Your task to perform on an android device: turn notification dots on Image 0: 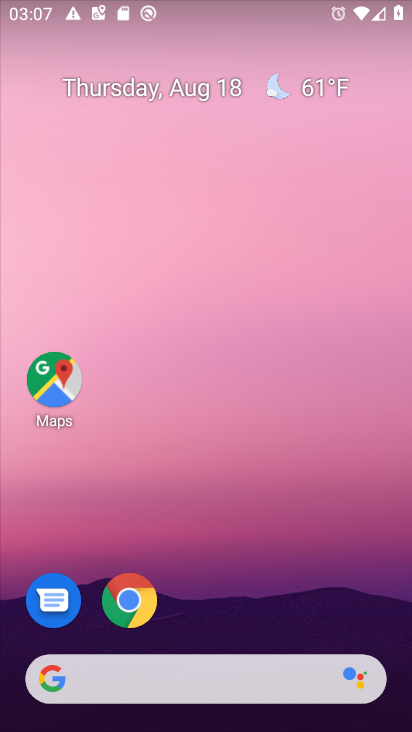
Step 0: press home button
Your task to perform on an android device: turn notification dots on Image 1: 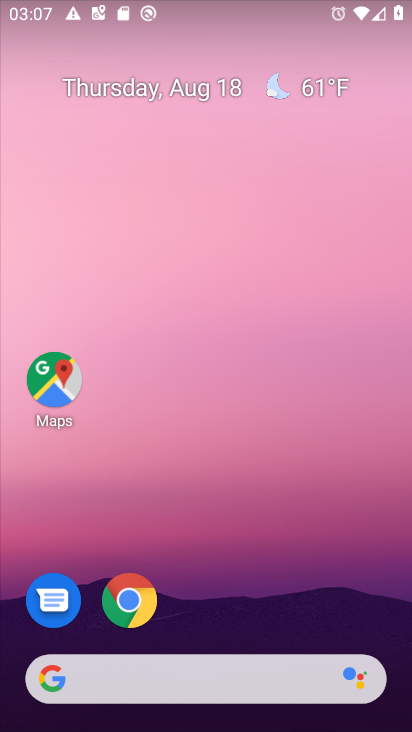
Step 1: drag from (271, 572) to (206, 1)
Your task to perform on an android device: turn notification dots on Image 2: 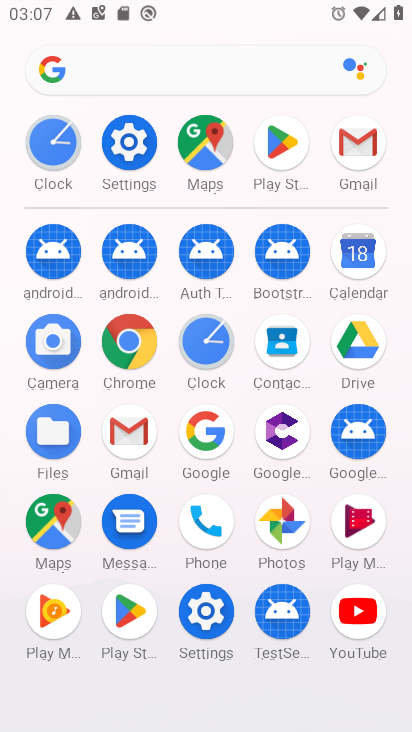
Step 2: click (142, 137)
Your task to perform on an android device: turn notification dots on Image 3: 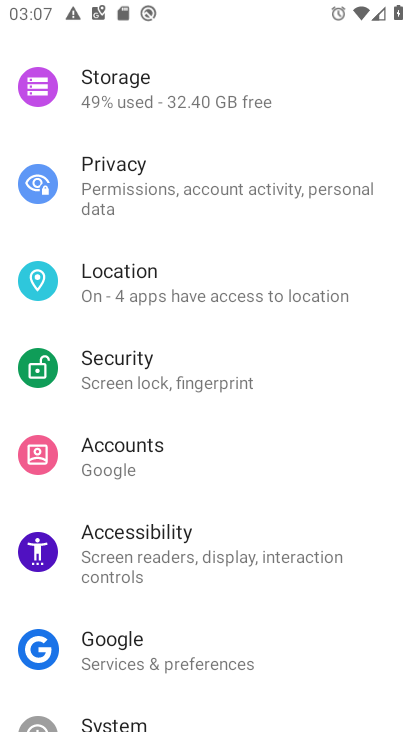
Step 3: drag from (281, 370) to (333, 678)
Your task to perform on an android device: turn notification dots on Image 4: 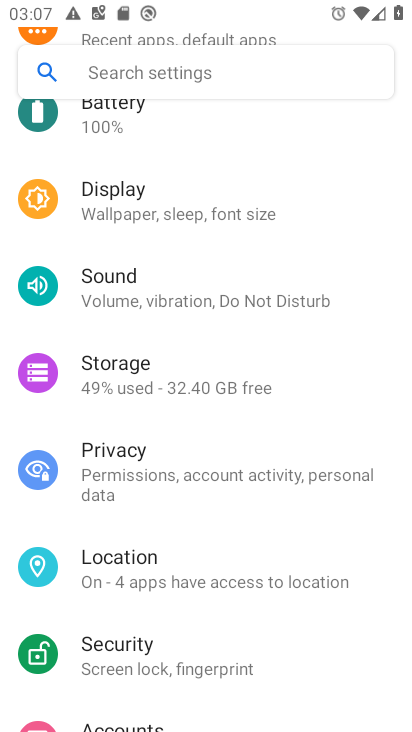
Step 4: drag from (257, 334) to (300, 701)
Your task to perform on an android device: turn notification dots on Image 5: 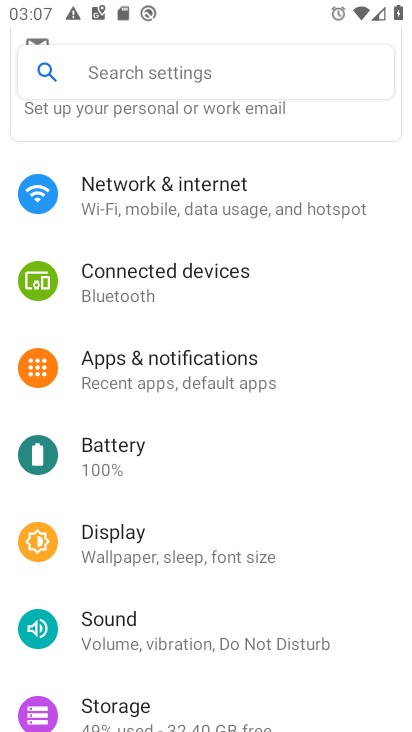
Step 5: drag from (285, 345) to (290, 580)
Your task to perform on an android device: turn notification dots on Image 6: 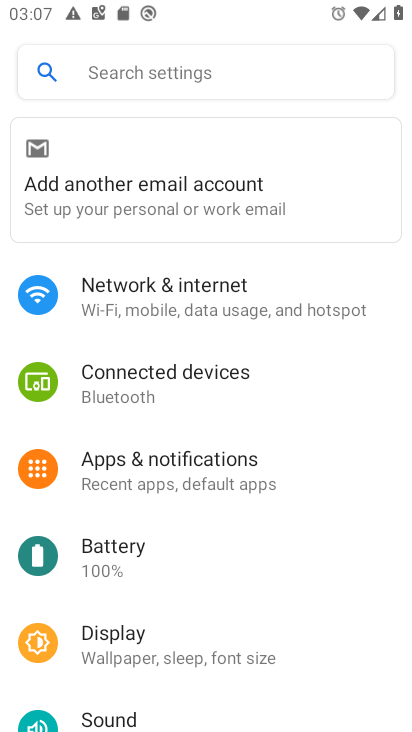
Step 6: click (158, 468)
Your task to perform on an android device: turn notification dots on Image 7: 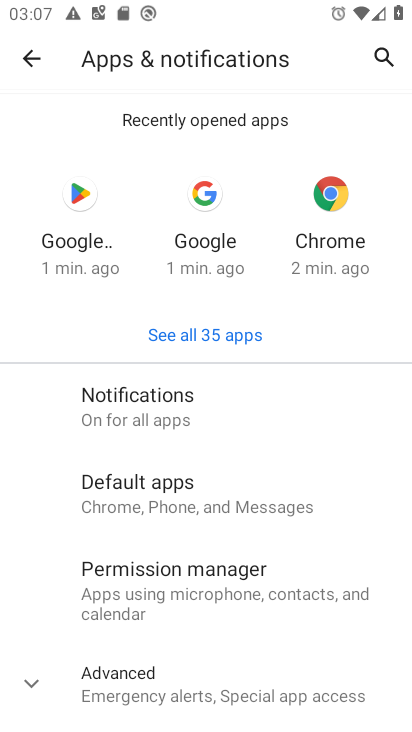
Step 7: click (149, 402)
Your task to perform on an android device: turn notification dots on Image 8: 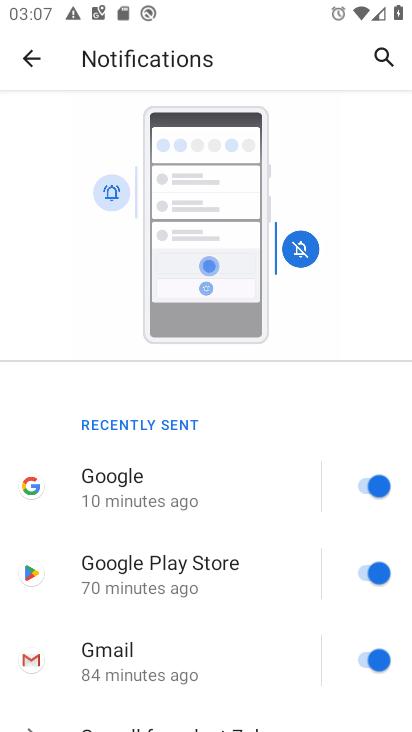
Step 8: drag from (287, 654) to (193, 85)
Your task to perform on an android device: turn notification dots on Image 9: 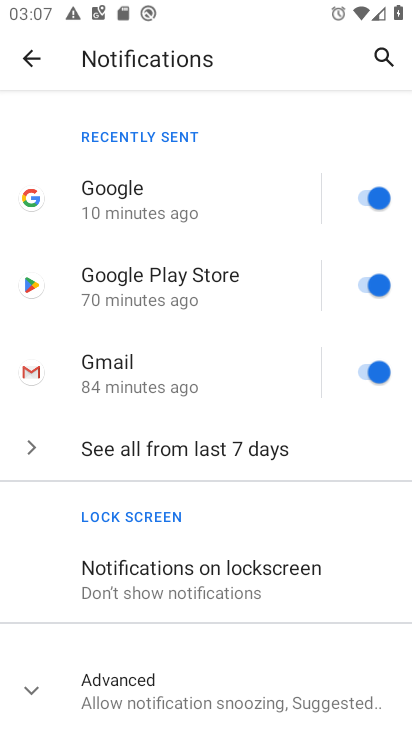
Step 9: click (170, 709)
Your task to perform on an android device: turn notification dots on Image 10: 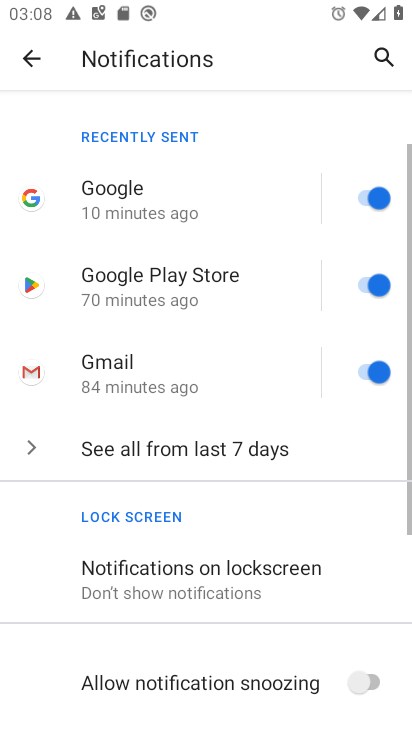
Step 10: task complete